Your task to perform on an android device: allow cookies in the chrome app Image 0: 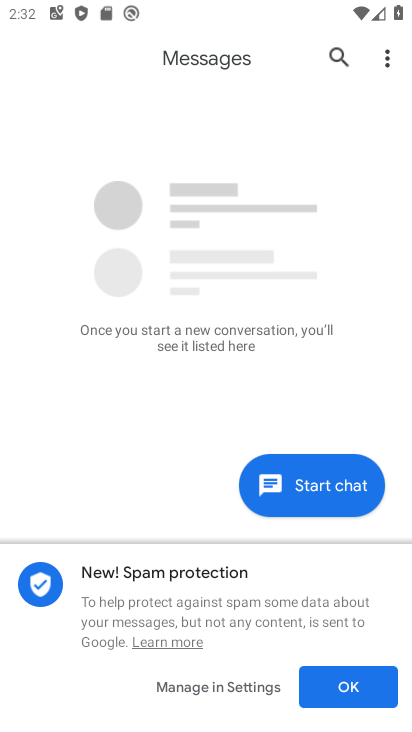
Step 0: press home button
Your task to perform on an android device: allow cookies in the chrome app Image 1: 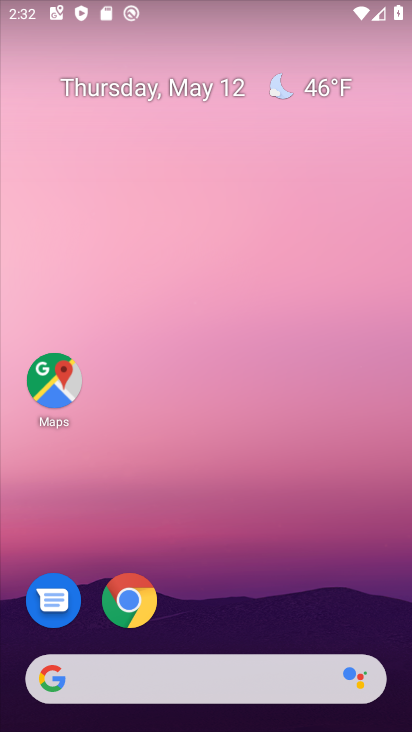
Step 1: drag from (267, 570) to (351, 61)
Your task to perform on an android device: allow cookies in the chrome app Image 2: 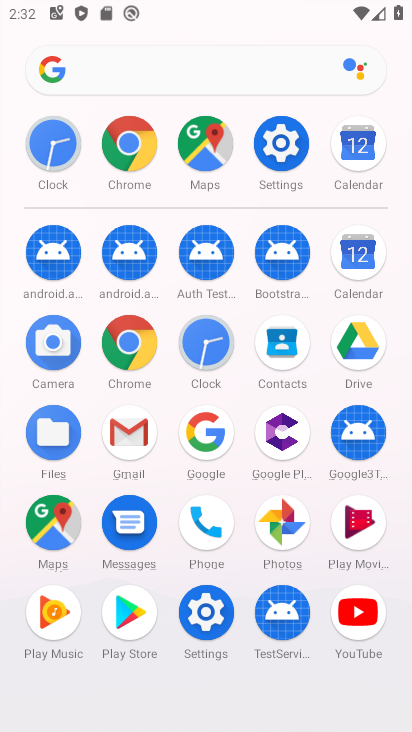
Step 2: click (126, 339)
Your task to perform on an android device: allow cookies in the chrome app Image 3: 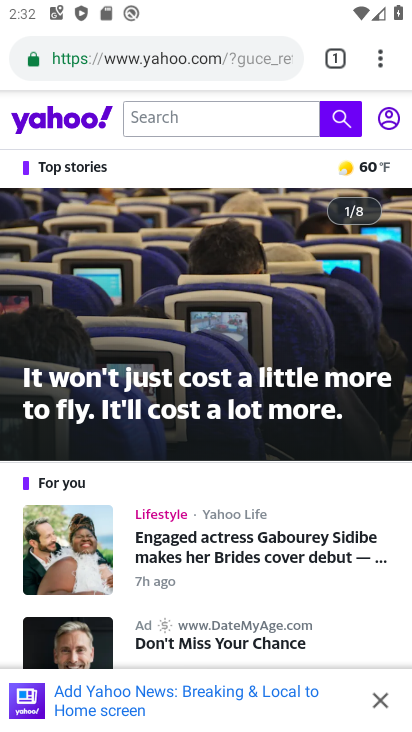
Step 3: click (391, 708)
Your task to perform on an android device: allow cookies in the chrome app Image 4: 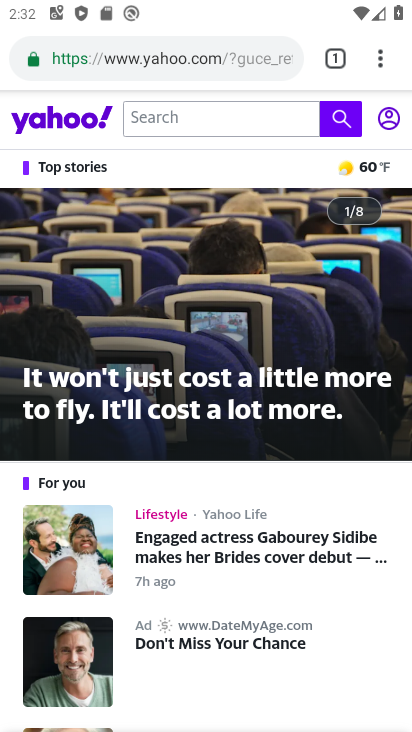
Step 4: click (391, 66)
Your task to perform on an android device: allow cookies in the chrome app Image 5: 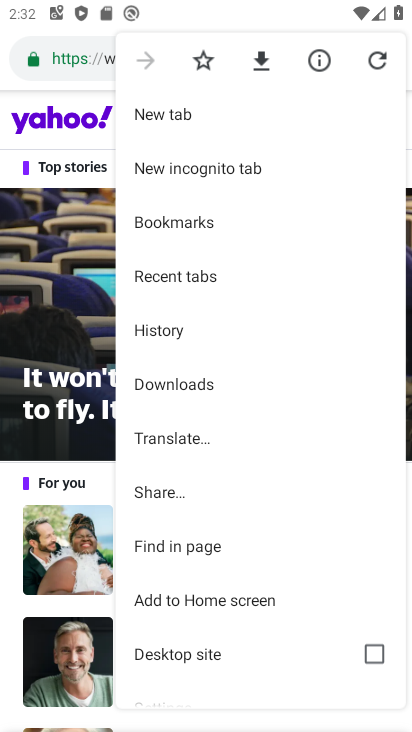
Step 5: drag from (182, 615) to (241, 303)
Your task to perform on an android device: allow cookies in the chrome app Image 6: 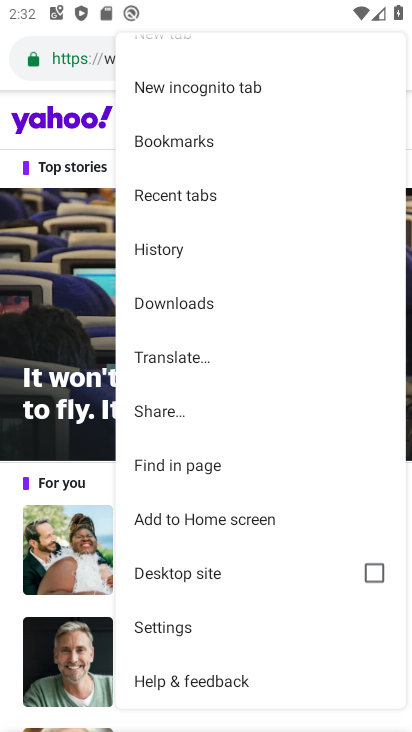
Step 6: click (174, 624)
Your task to perform on an android device: allow cookies in the chrome app Image 7: 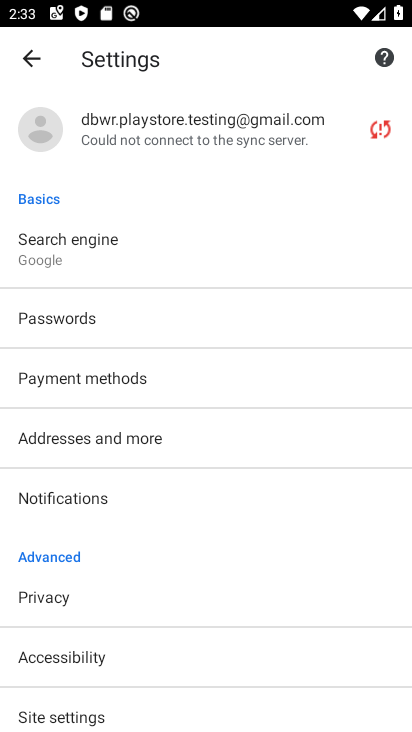
Step 7: drag from (150, 548) to (166, 302)
Your task to perform on an android device: allow cookies in the chrome app Image 8: 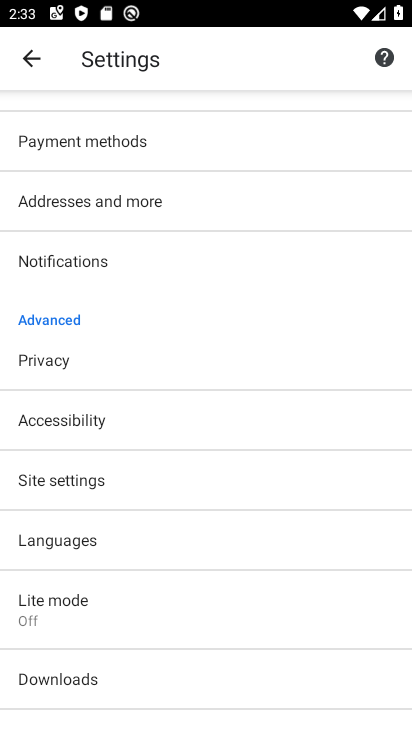
Step 8: click (77, 488)
Your task to perform on an android device: allow cookies in the chrome app Image 9: 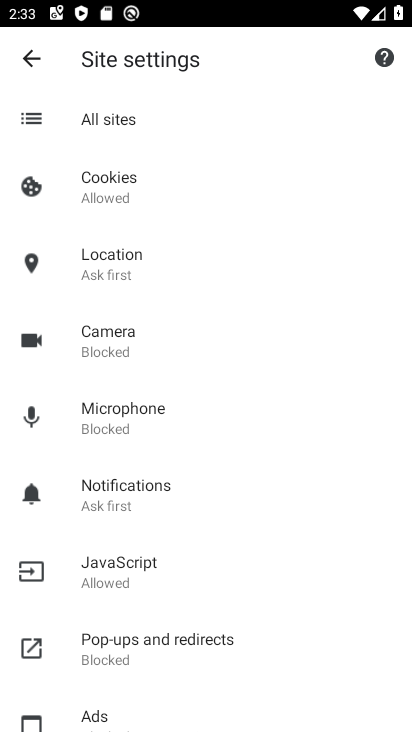
Step 9: task complete